Your task to perform on an android device: open app "Upside-Cash back on gas & food" (install if not already installed) and enter user name: "transatlantic@gmail.com" and password: "experiences" Image 0: 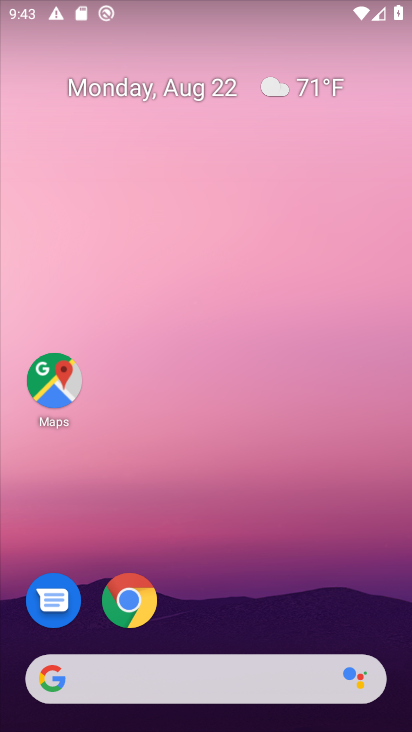
Step 0: drag from (212, 563) to (212, 186)
Your task to perform on an android device: open app "Upside-Cash back on gas & food" (install if not already installed) and enter user name: "transatlantic@gmail.com" and password: "experiences" Image 1: 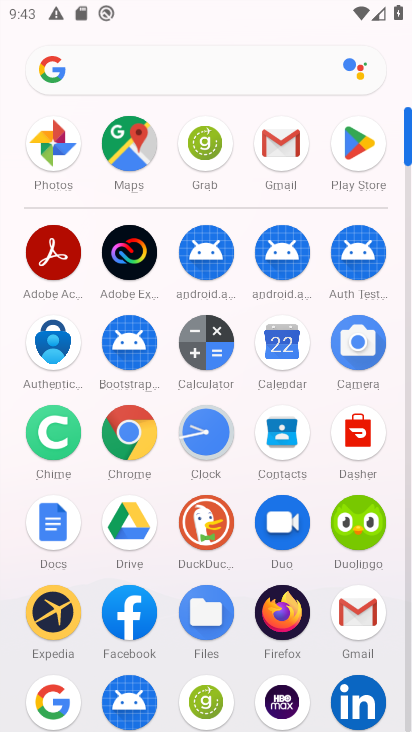
Step 1: click (352, 160)
Your task to perform on an android device: open app "Upside-Cash back on gas & food" (install if not already installed) and enter user name: "transatlantic@gmail.com" and password: "experiences" Image 2: 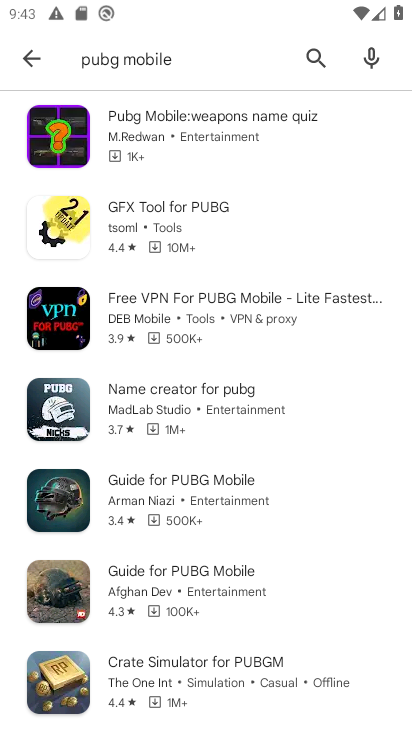
Step 2: click (318, 58)
Your task to perform on an android device: open app "Upside-Cash back on gas & food" (install if not already installed) and enter user name: "transatlantic@gmail.com" and password: "experiences" Image 3: 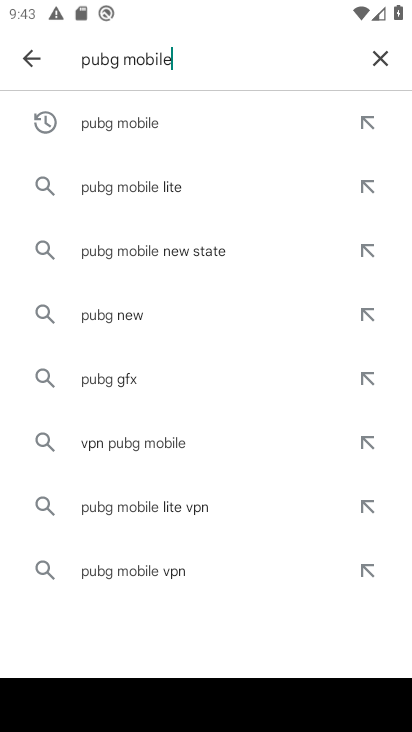
Step 3: click (368, 53)
Your task to perform on an android device: open app "Upside-Cash back on gas & food" (install if not already installed) and enter user name: "transatlantic@gmail.com" and password: "experiences" Image 4: 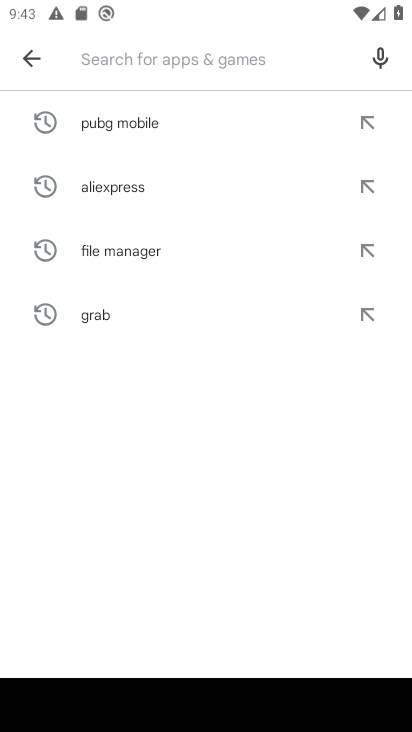
Step 4: type "Upside-Cash back on gas & food"
Your task to perform on an android device: open app "Upside-Cash back on gas & food" (install if not already installed) and enter user name: "transatlantic@gmail.com" and password: "experiences" Image 5: 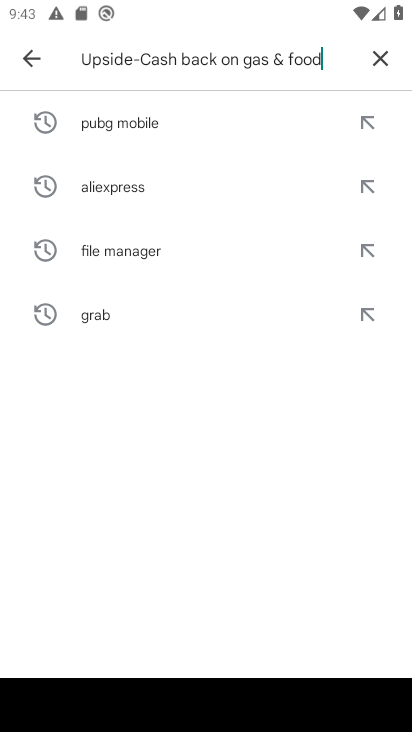
Step 5: type ""
Your task to perform on an android device: open app "Upside-Cash back on gas & food" (install if not already installed) and enter user name: "transatlantic@gmail.com" and password: "experiences" Image 6: 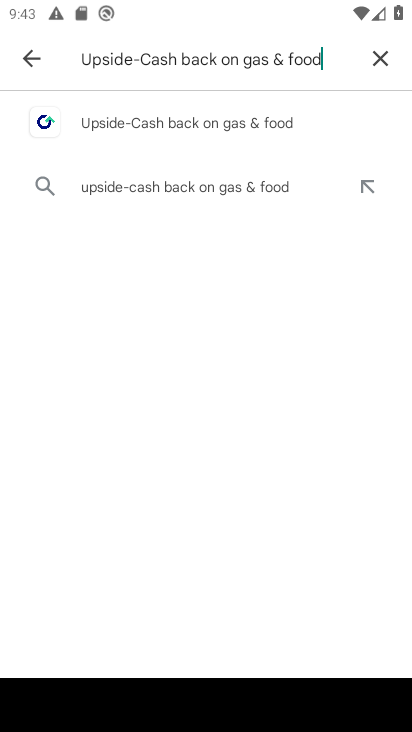
Step 6: click (123, 121)
Your task to perform on an android device: open app "Upside-Cash back on gas & food" (install if not already installed) and enter user name: "transatlantic@gmail.com" and password: "experiences" Image 7: 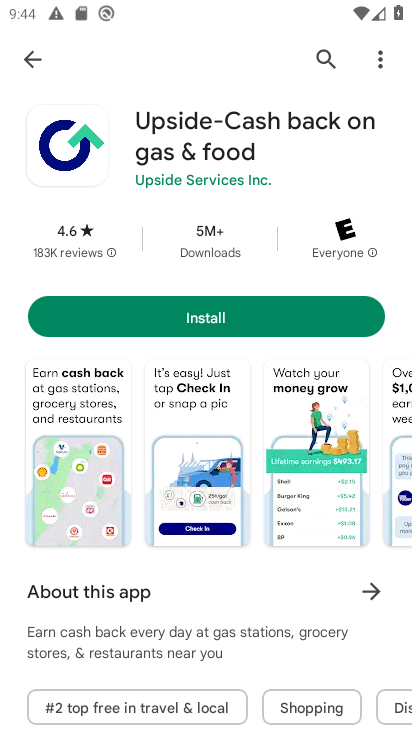
Step 7: click (166, 314)
Your task to perform on an android device: open app "Upside-Cash back on gas & food" (install if not already installed) and enter user name: "transatlantic@gmail.com" and password: "experiences" Image 8: 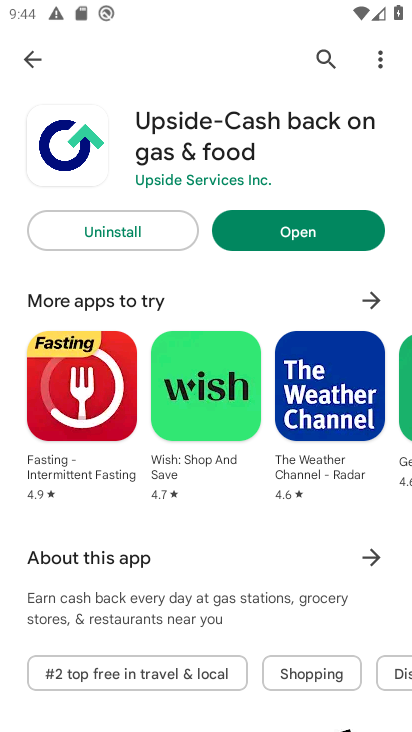
Step 8: click (288, 232)
Your task to perform on an android device: open app "Upside-Cash back on gas & food" (install if not already installed) and enter user name: "transatlantic@gmail.com" and password: "experiences" Image 9: 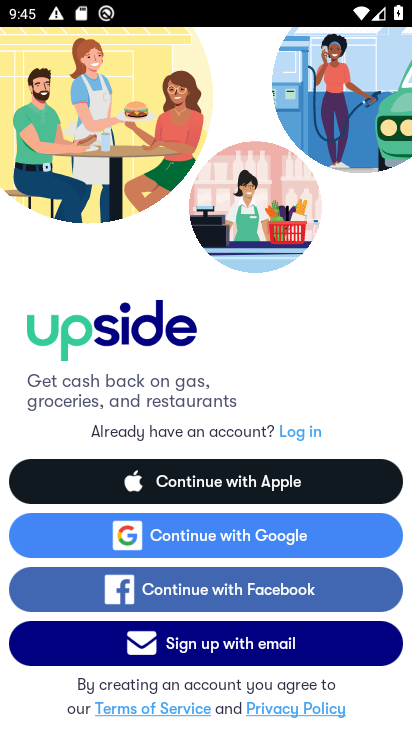
Step 9: task complete